Your task to perform on an android device: What's the weather? Image 0: 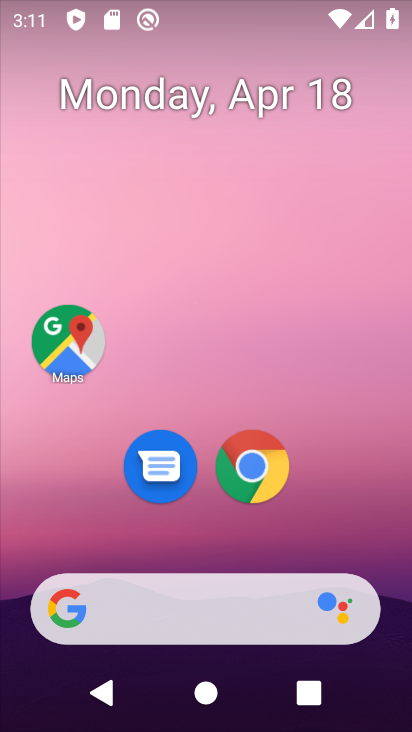
Step 0: drag from (356, 509) to (215, 0)
Your task to perform on an android device: What's the weather? Image 1: 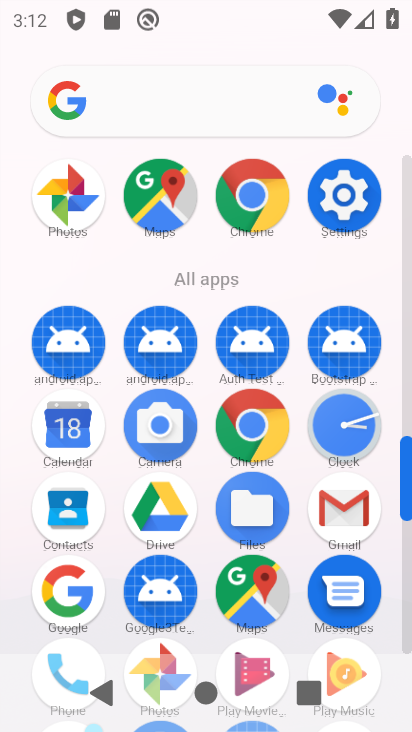
Step 1: click (211, 106)
Your task to perform on an android device: What's the weather? Image 2: 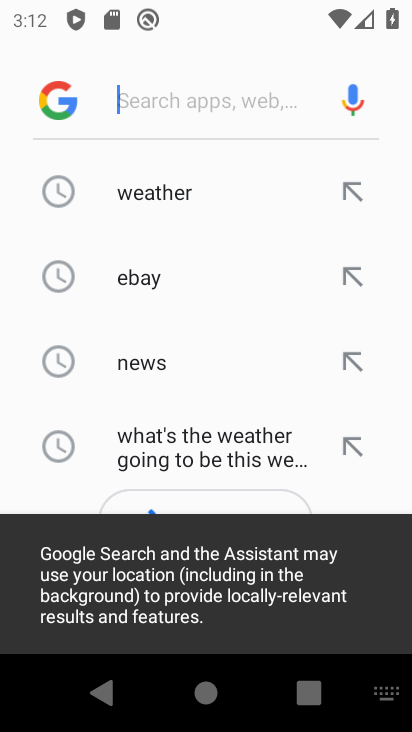
Step 2: click (179, 209)
Your task to perform on an android device: What's the weather? Image 3: 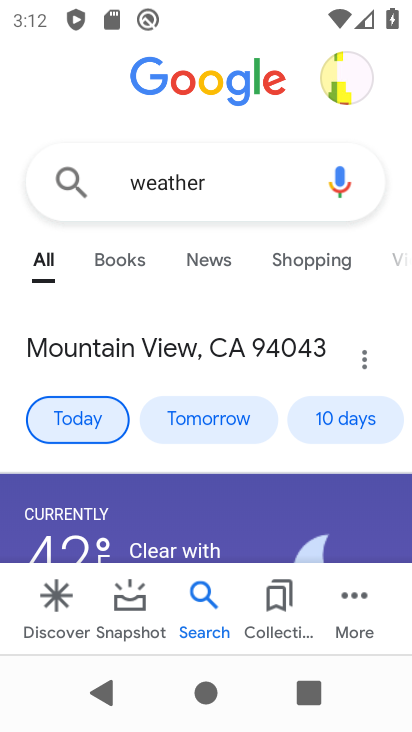
Step 3: task complete